Your task to perform on an android device: Open Google Chrome and click the shortcut for Amazon.com Image 0: 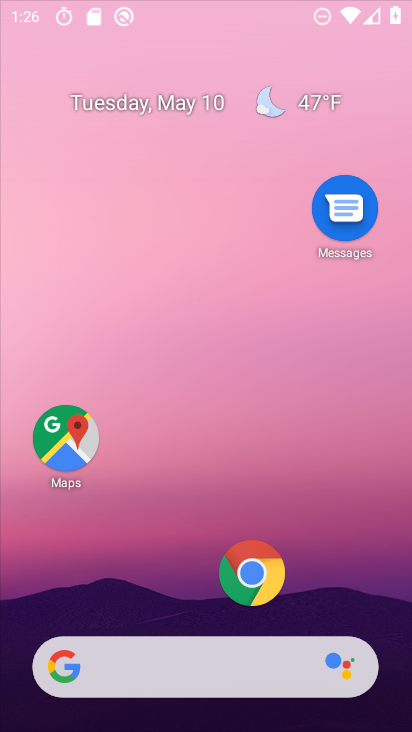
Step 0: click (338, 12)
Your task to perform on an android device: Open Google Chrome and click the shortcut for Amazon.com Image 1: 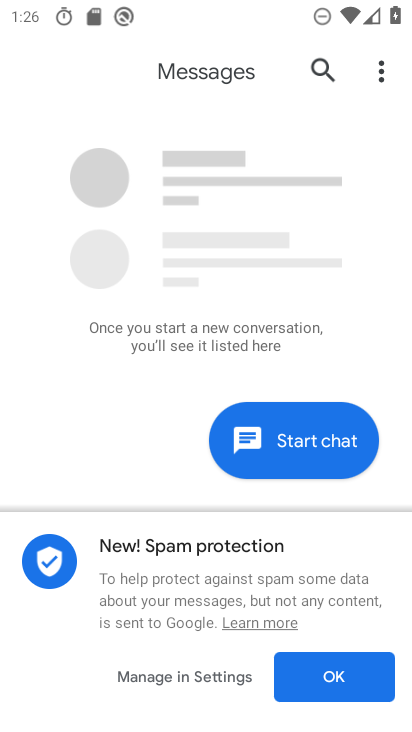
Step 1: press home button
Your task to perform on an android device: Open Google Chrome and click the shortcut for Amazon.com Image 2: 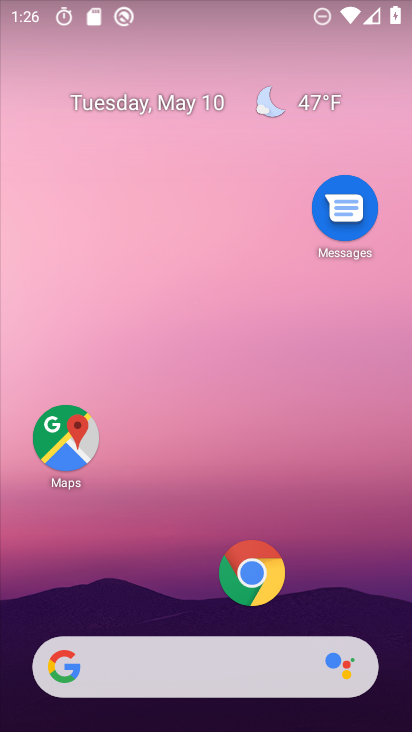
Step 2: click (247, 583)
Your task to perform on an android device: Open Google Chrome and click the shortcut for Amazon.com Image 3: 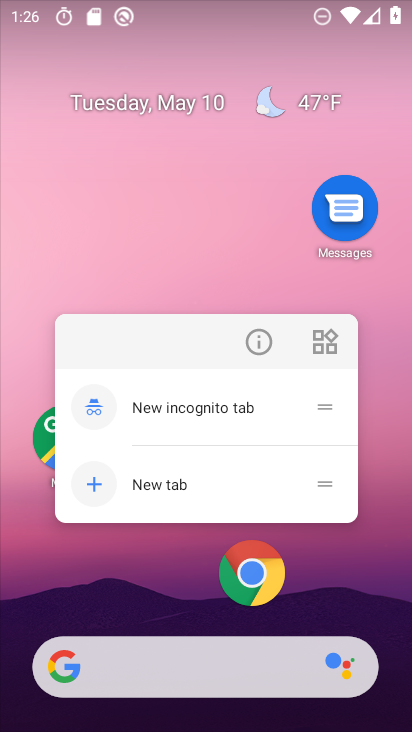
Step 3: click (260, 337)
Your task to perform on an android device: Open Google Chrome and click the shortcut for Amazon.com Image 4: 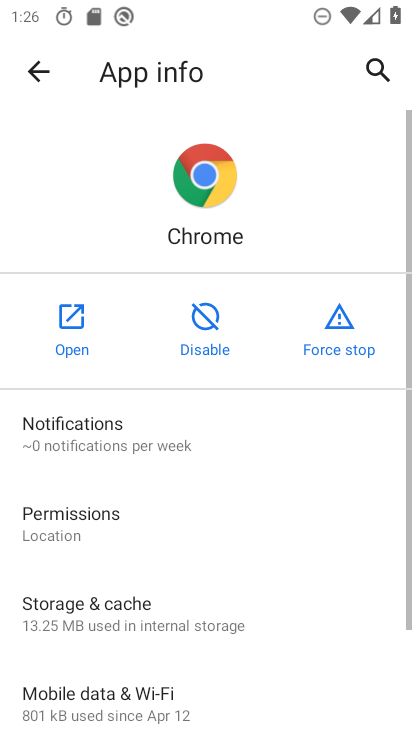
Step 4: click (92, 358)
Your task to perform on an android device: Open Google Chrome and click the shortcut for Amazon.com Image 5: 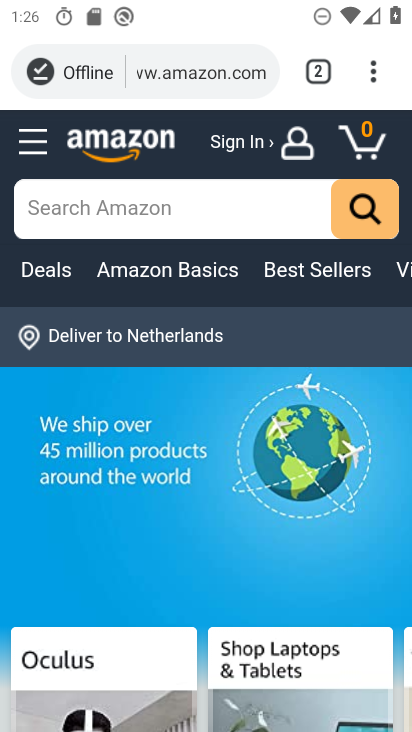
Step 5: click (325, 68)
Your task to perform on an android device: Open Google Chrome and click the shortcut for Amazon.com Image 6: 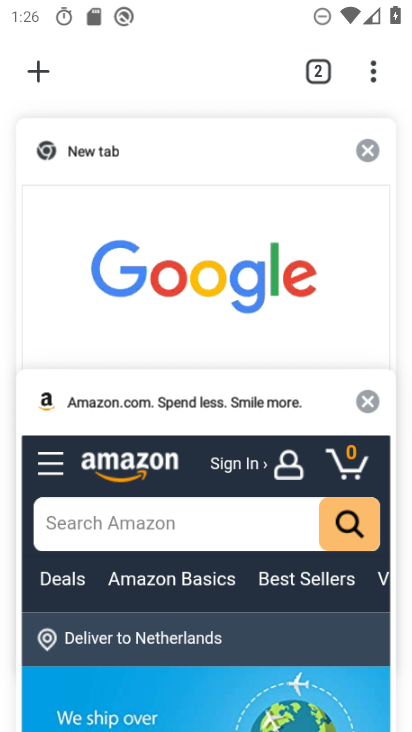
Step 6: click (36, 69)
Your task to perform on an android device: Open Google Chrome and click the shortcut for Amazon.com Image 7: 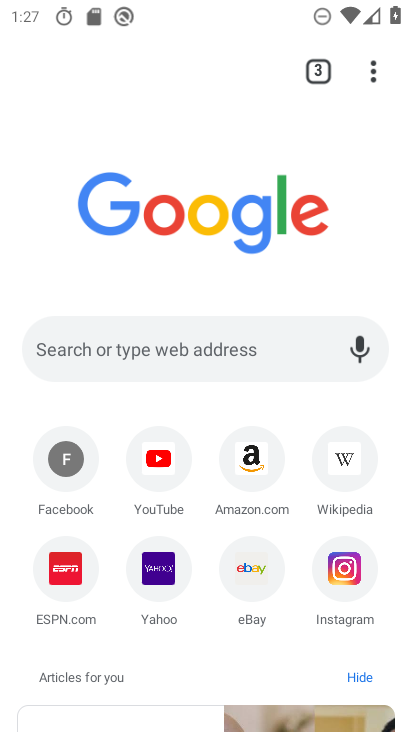
Step 7: click (263, 453)
Your task to perform on an android device: Open Google Chrome and click the shortcut for Amazon.com Image 8: 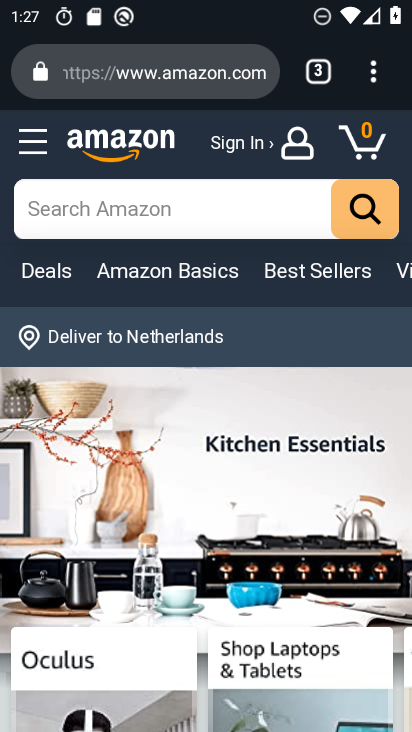
Step 8: task complete